Your task to perform on an android device: Open calendar and show me the fourth week of next month Image 0: 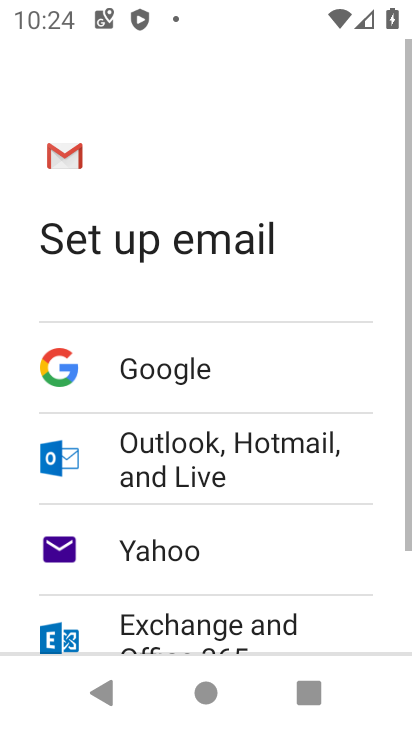
Step 0: press home button
Your task to perform on an android device: Open calendar and show me the fourth week of next month Image 1: 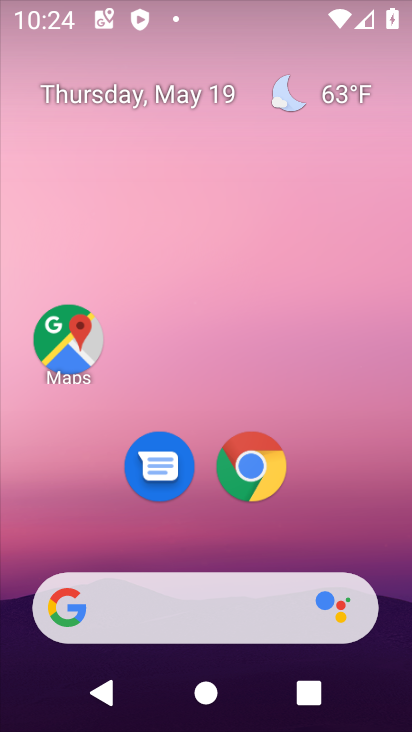
Step 1: drag from (403, 626) to (238, 35)
Your task to perform on an android device: Open calendar and show me the fourth week of next month Image 2: 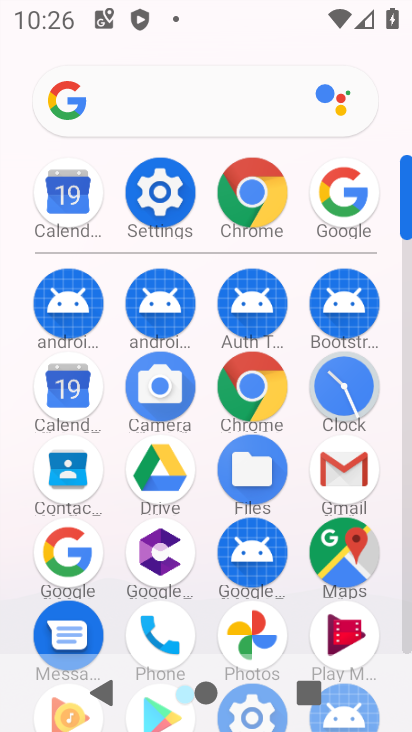
Step 2: click (58, 397)
Your task to perform on an android device: Open calendar and show me the fourth week of next month Image 3: 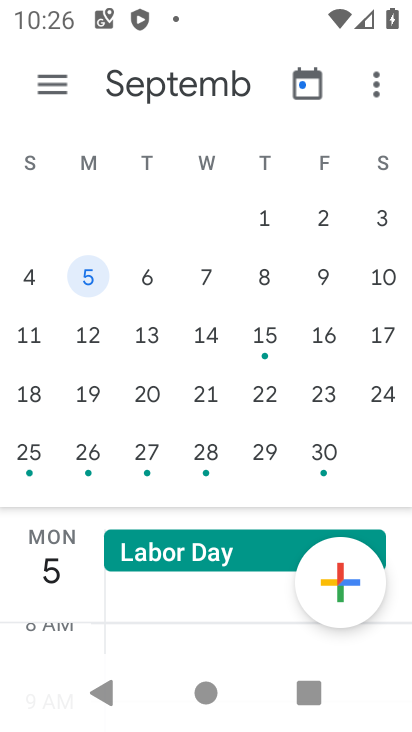
Step 3: drag from (315, 342) to (3, 321)
Your task to perform on an android device: Open calendar and show me the fourth week of next month Image 4: 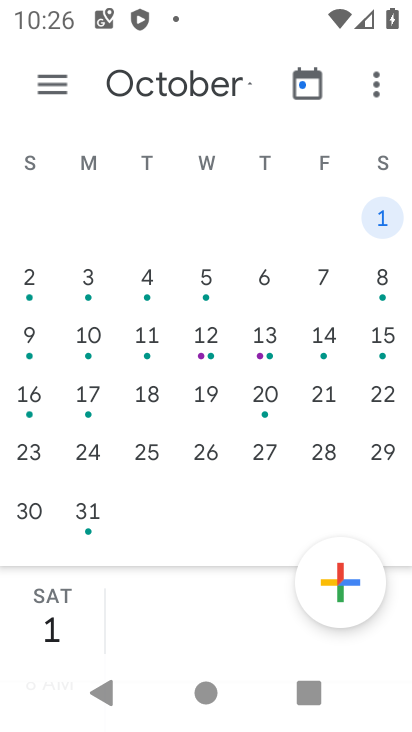
Step 4: click (153, 465)
Your task to perform on an android device: Open calendar and show me the fourth week of next month Image 5: 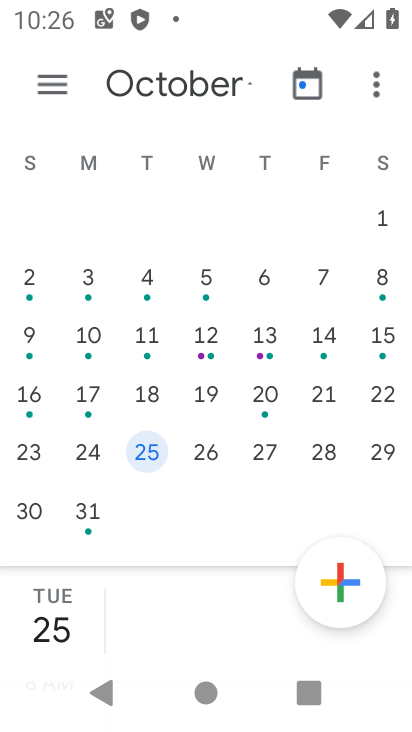
Step 5: task complete